Your task to perform on an android device: Show me popular videos on Youtube Image 0: 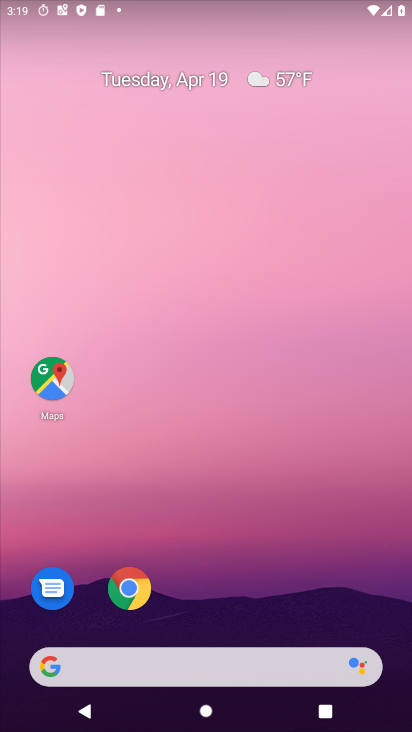
Step 0: drag from (208, 610) to (403, 41)
Your task to perform on an android device: Show me popular videos on Youtube Image 1: 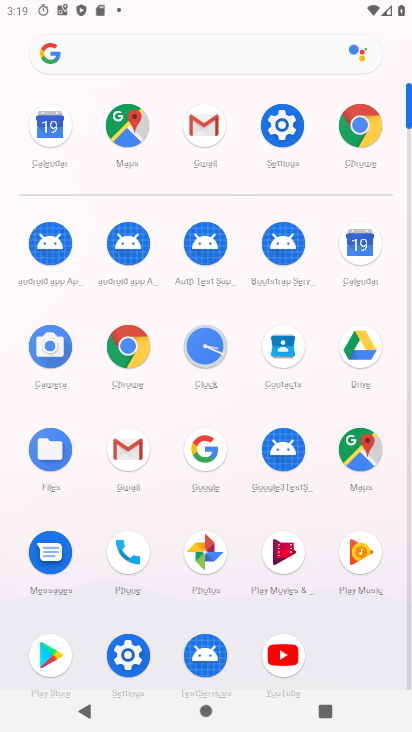
Step 1: click (278, 638)
Your task to perform on an android device: Show me popular videos on Youtube Image 2: 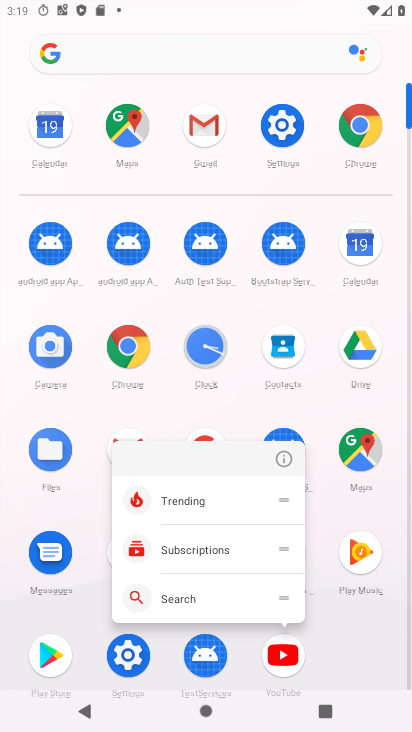
Step 2: click (281, 459)
Your task to perform on an android device: Show me popular videos on Youtube Image 3: 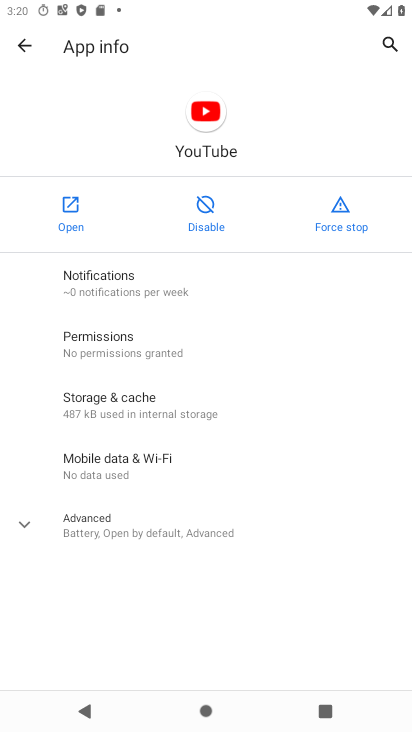
Step 3: click (74, 202)
Your task to perform on an android device: Show me popular videos on Youtube Image 4: 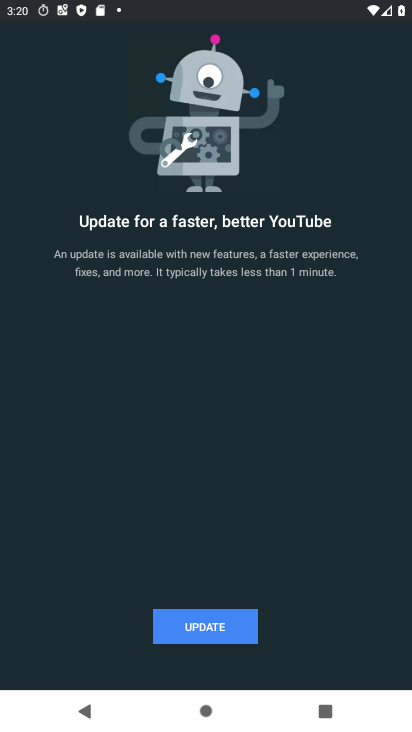
Step 4: task complete